Your task to perform on an android device: install app "Viber Messenger" Image 0: 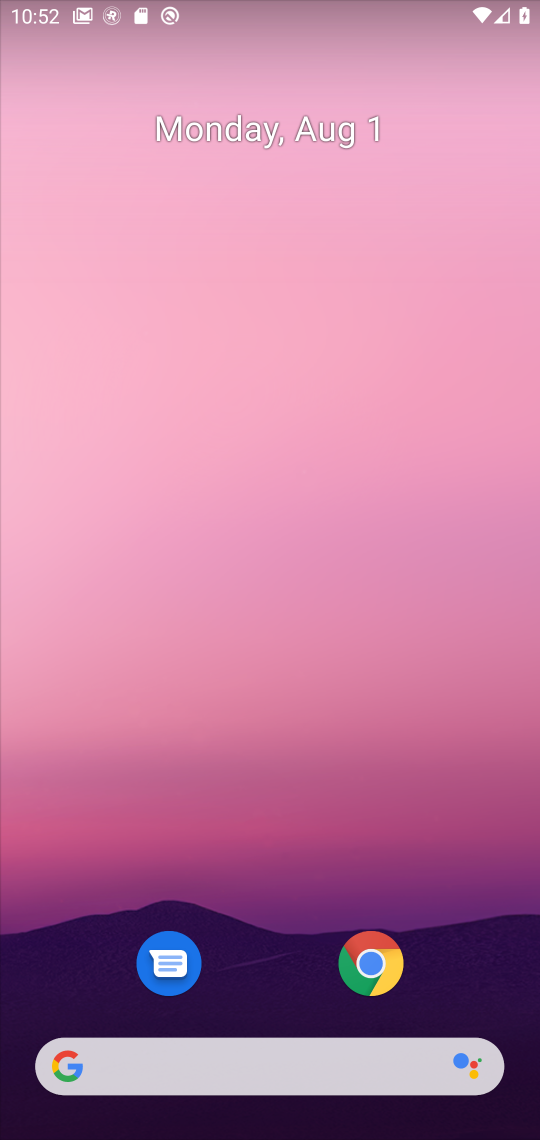
Step 0: drag from (247, 1004) to (535, 348)
Your task to perform on an android device: install app "Viber Messenger" Image 1: 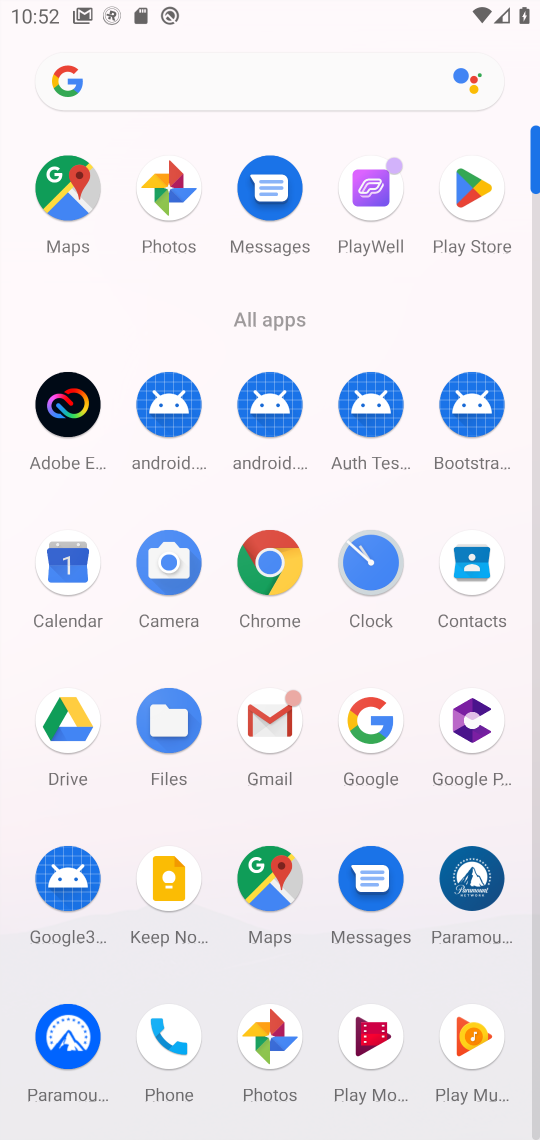
Step 1: click (482, 230)
Your task to perform on an android device: install app "Viber Messenger" Image 2: 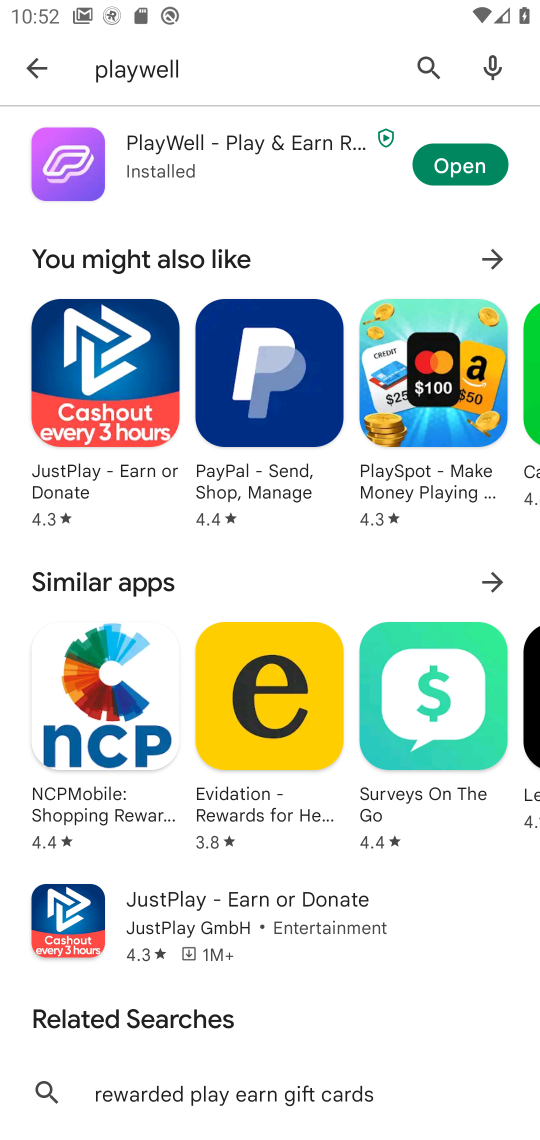
Step 2: click (243, 83)
Your task to perform on an android device: install app "Viber Messenger" Image 3: 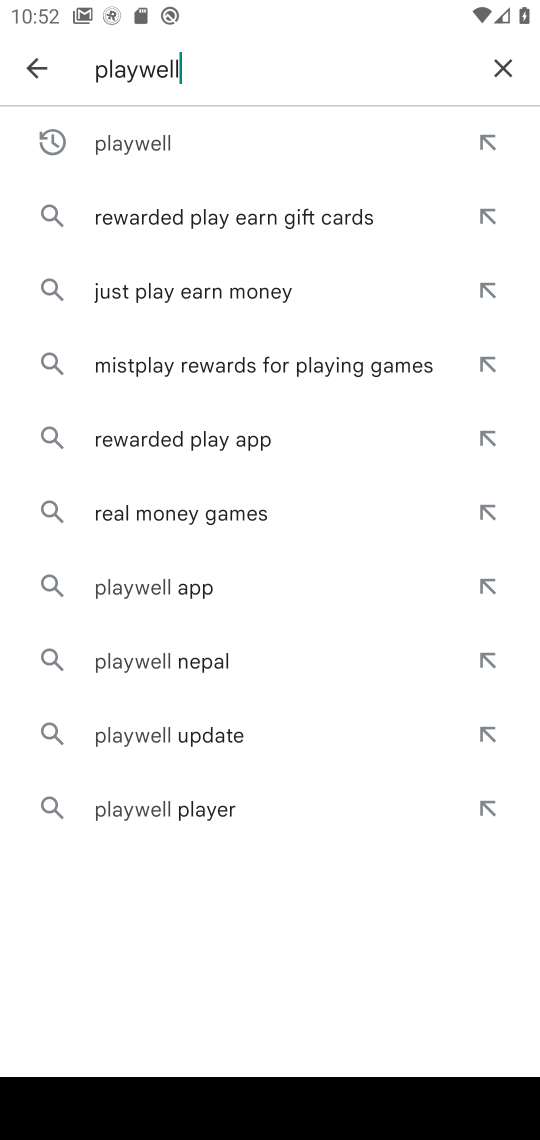
Step 3: click (510, 67)
Your task to perform on an android device: install app "Viber Messenger" Image 4: 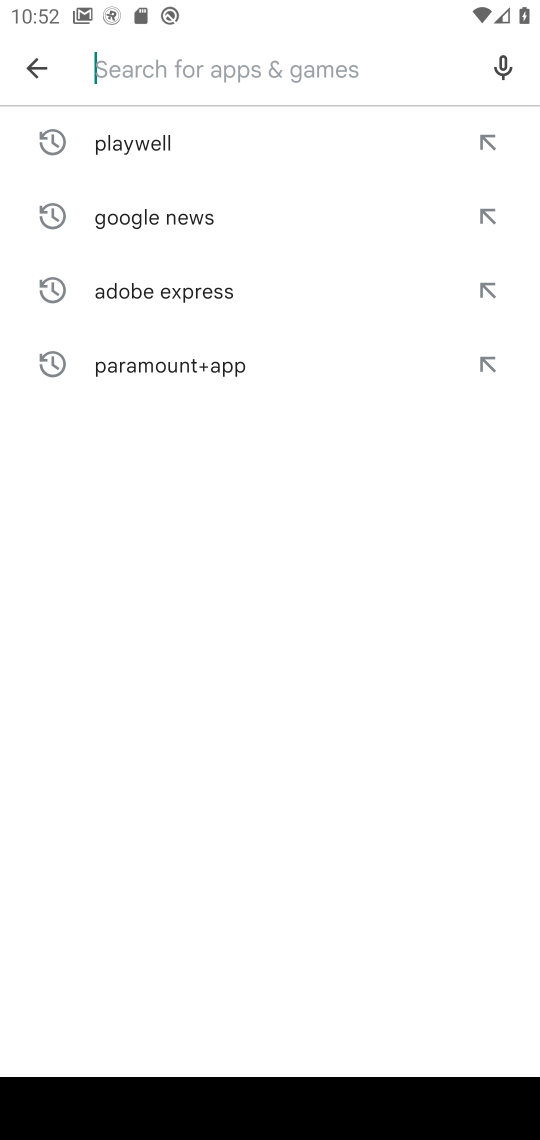
Step 4: type "Viber"
Your task to perform on an android device: install app "Viber Messenger" Image 5: 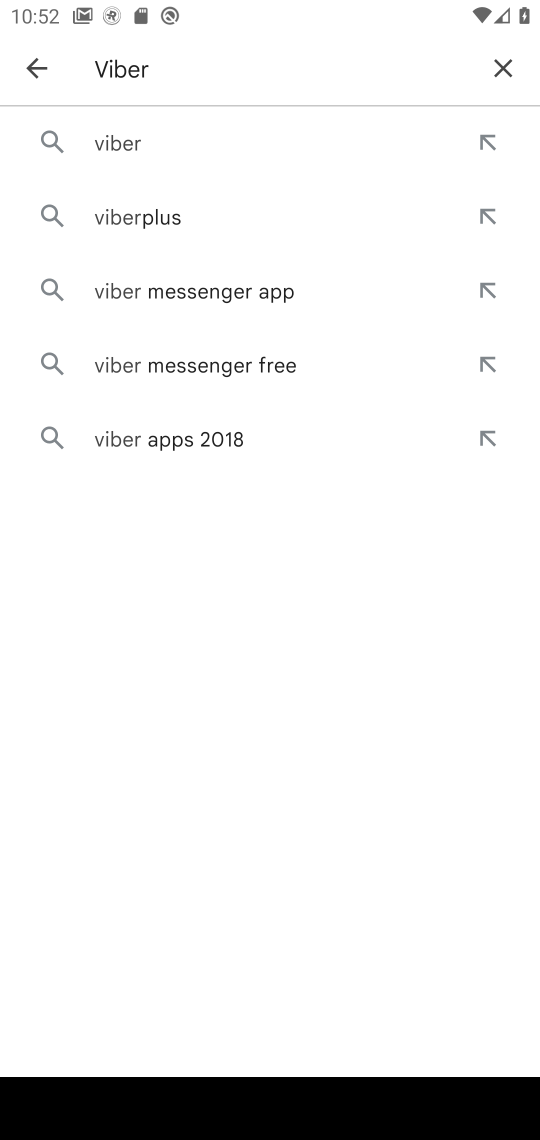
Step 5: click (146, 147)
Your task to perform on an android device: install app "Viber Messenger" Image 6: 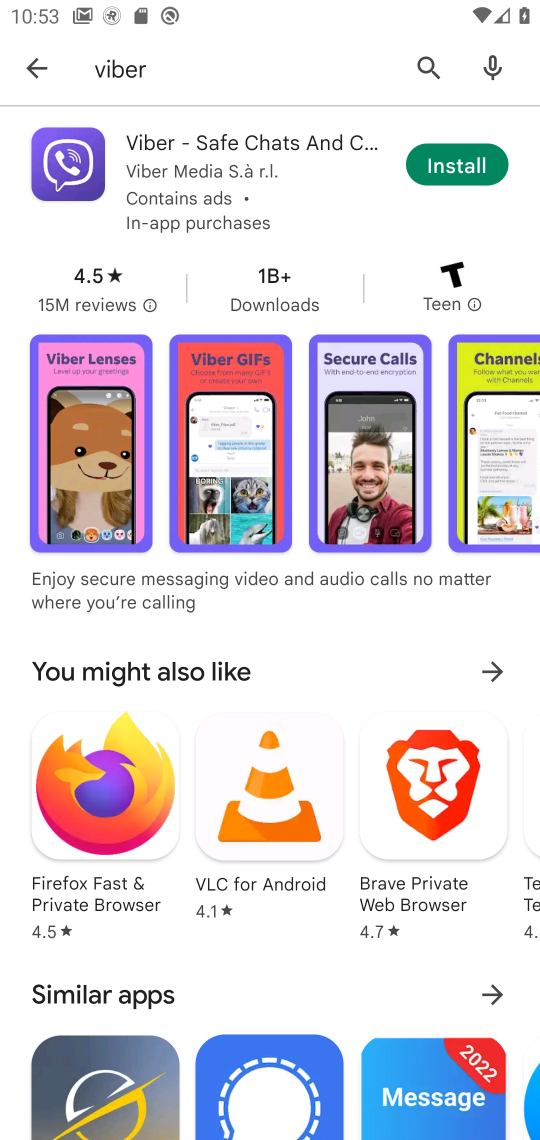
Step 6: click (432, 161)
Your task to perform on an android device: install app "Viber Messenger" Image 7: 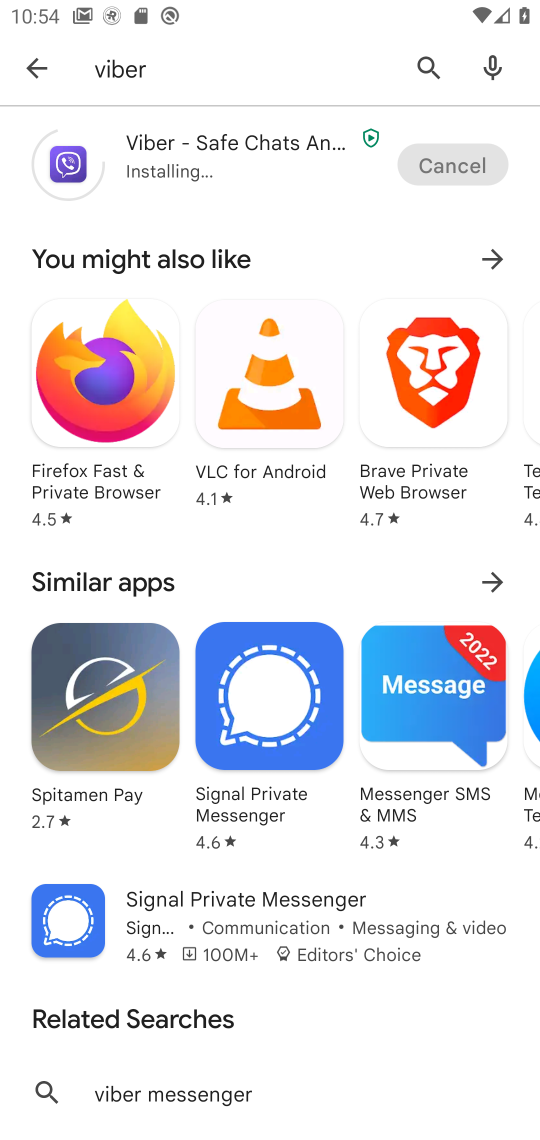
Step 7: click (200, 147)
Your task to perform on an android device: install app "Viber Messenger" Image 8: 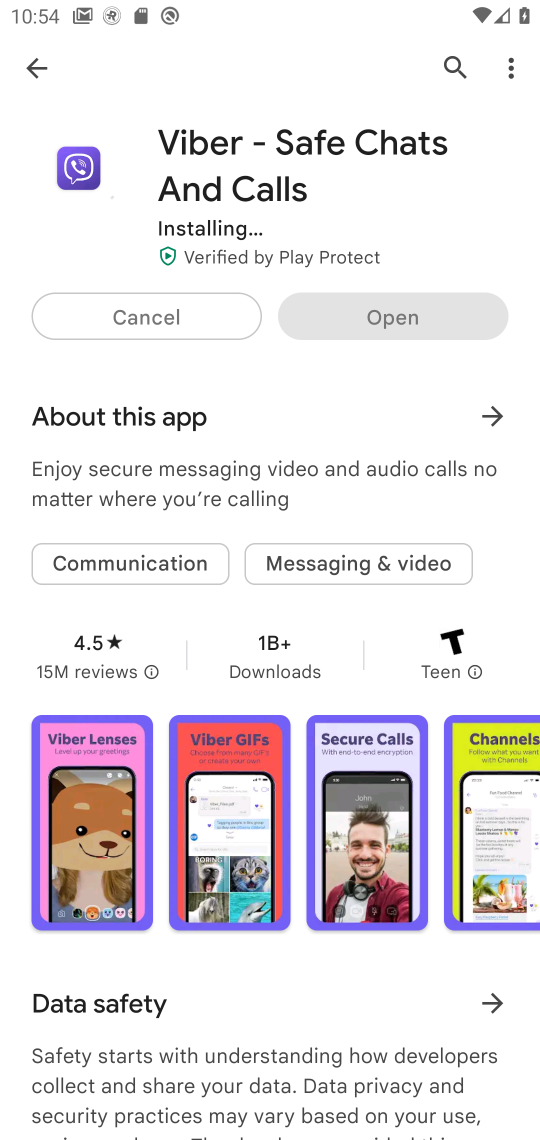
Step 8: click (33, 56)
Your task to perform on an android device: install app "Viber Messenger" Image 9: 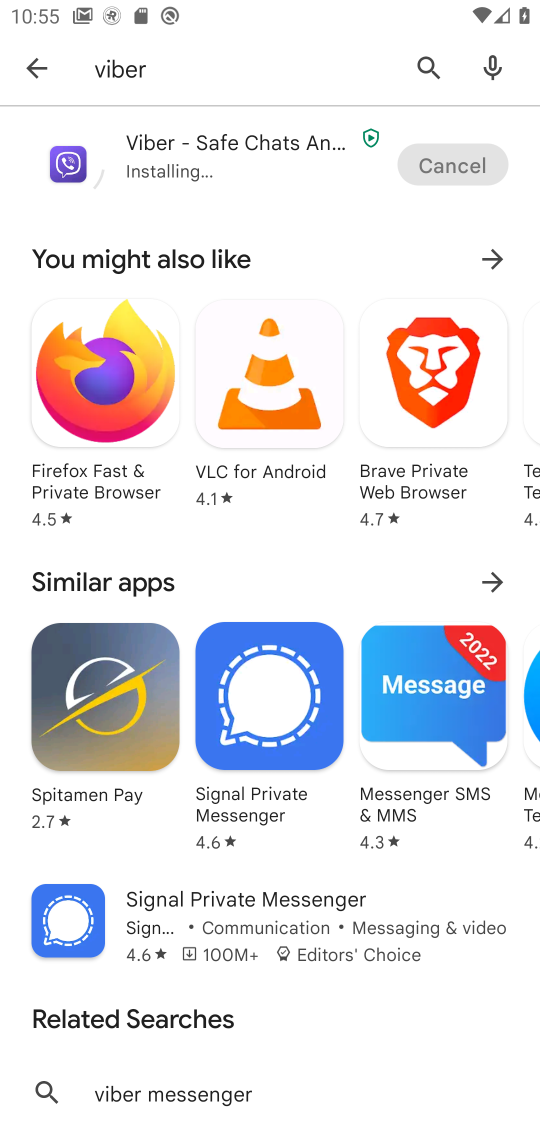
Step 9: click (228, 77)
Your task to perform on an android device: install app "Viber Messenger" Image 10: 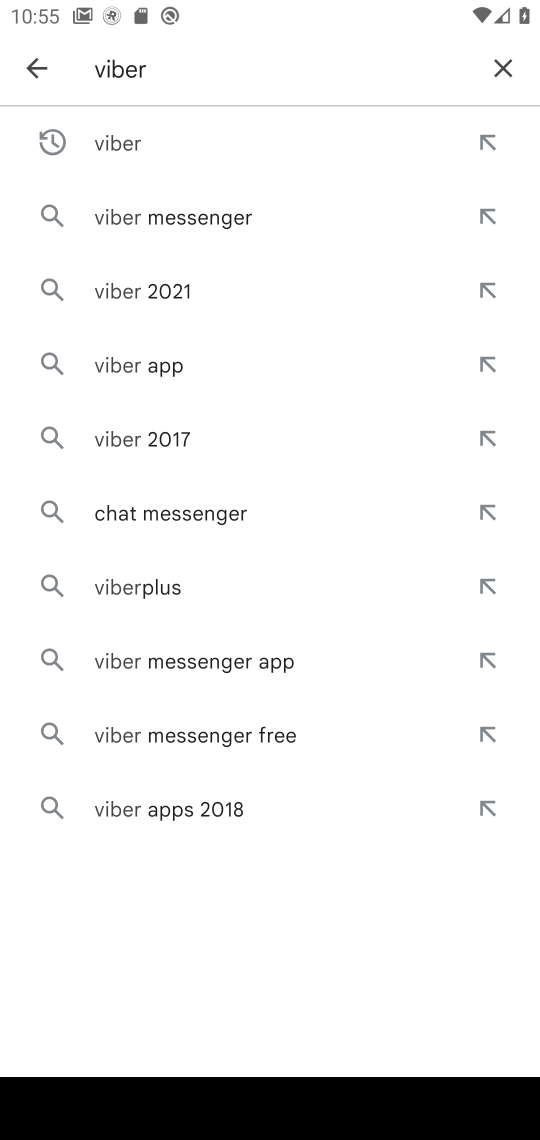
Step 10: type " messenger"
Your task to perform on an android device: install app "Viber Messenger" Image 11: 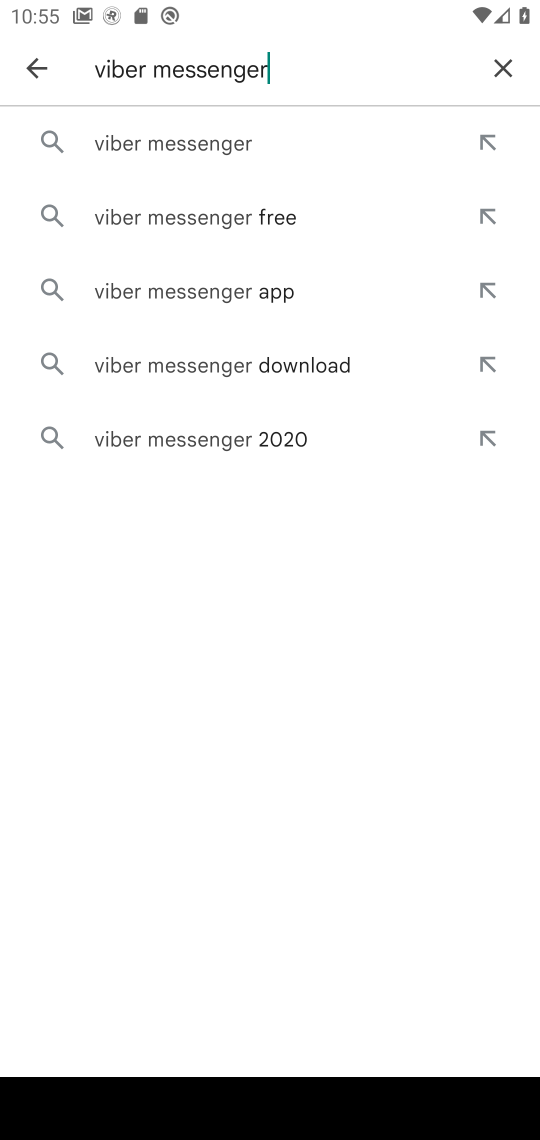
Step 11: click (178, 148)
Your task to perform on an android device: install app "Viber Messenger" Image 12: 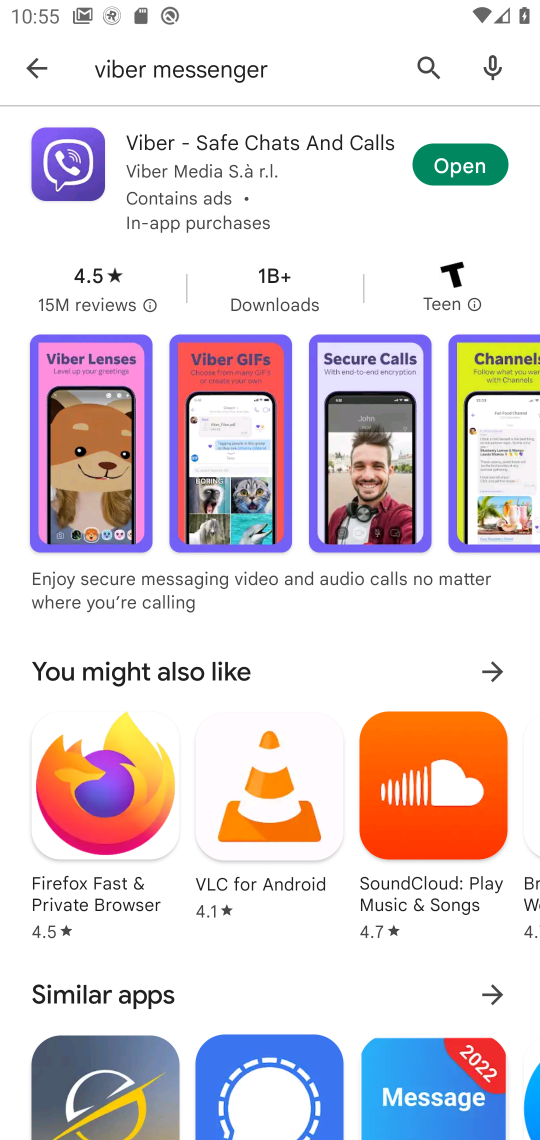
Step 12: task complete